Your task to perform on an android device: turn off picture-in-picture Image 0: 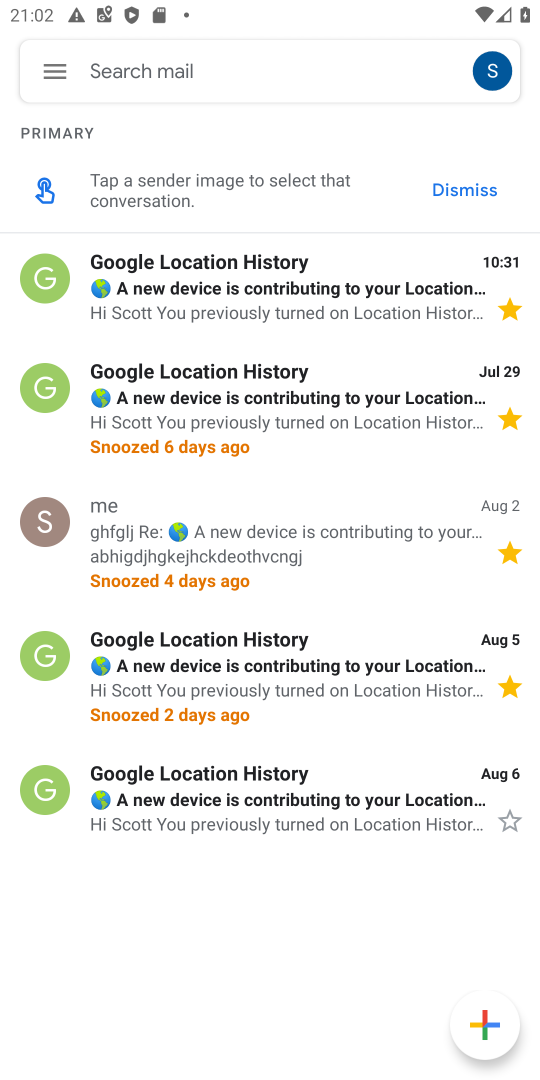
Step 0: press home button
Your task to perform on an android device: turn off picture-in-picture Image 1: 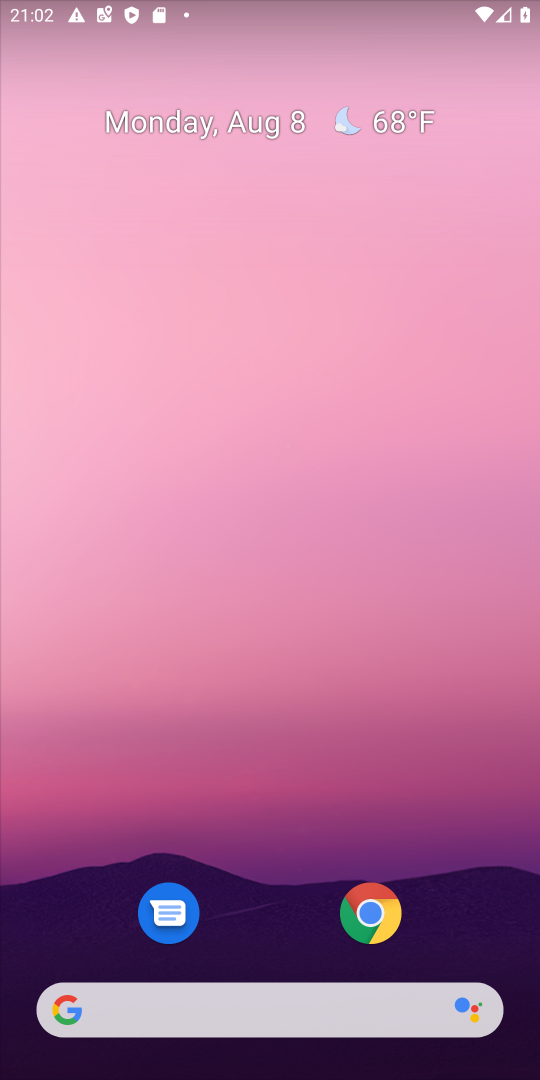
Step 1: click (371, 915)
Your task to perform on an android device: turn off picture-in-picture Image 2: 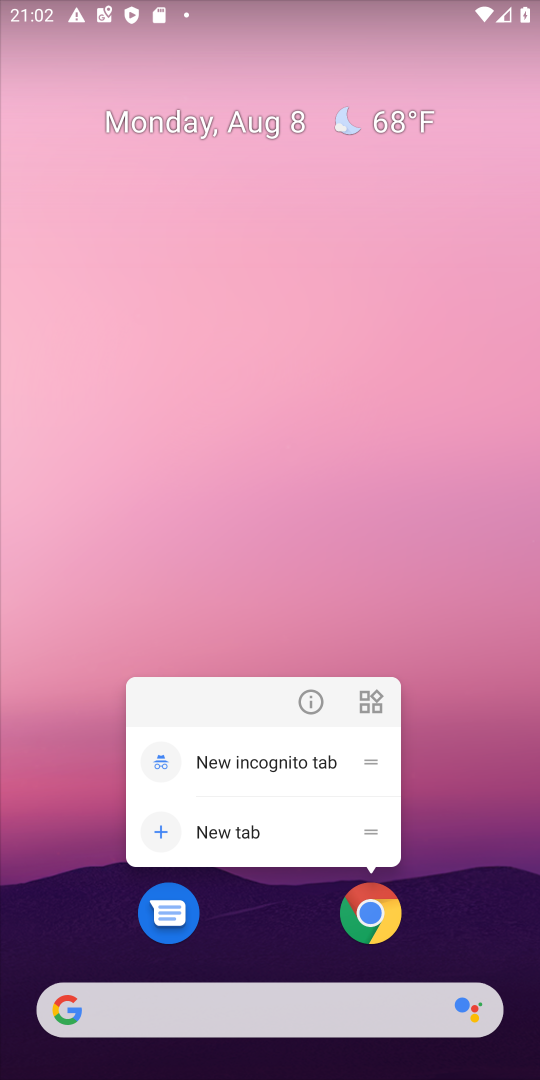
Step 2: click (309, 700)
Your task to perform on an android device: turn off picture-in-picture Image 3: 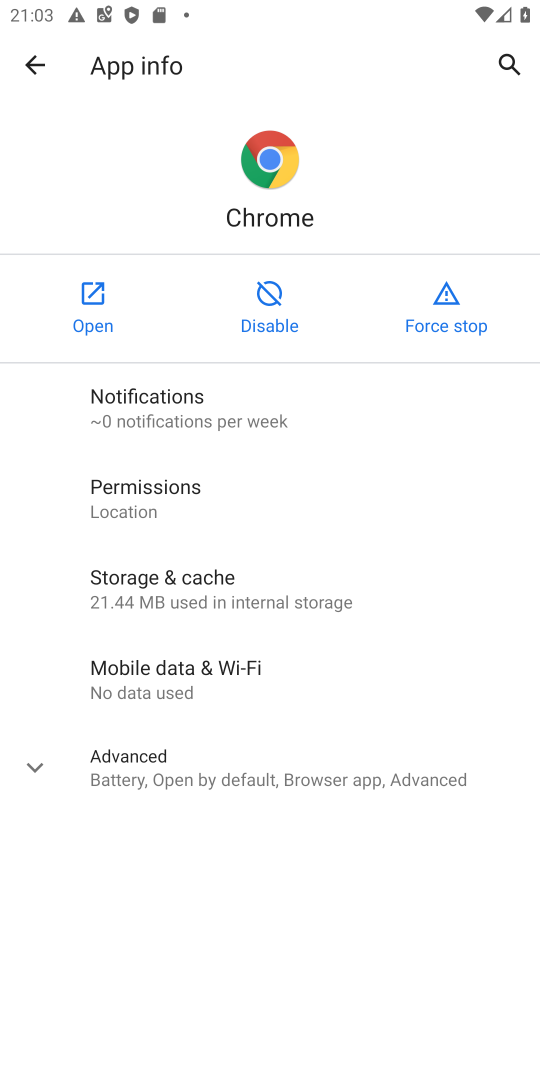
Step 3: click (115, 768)
Your task to perform on an android device: turn off picture-in-picture Image 4: 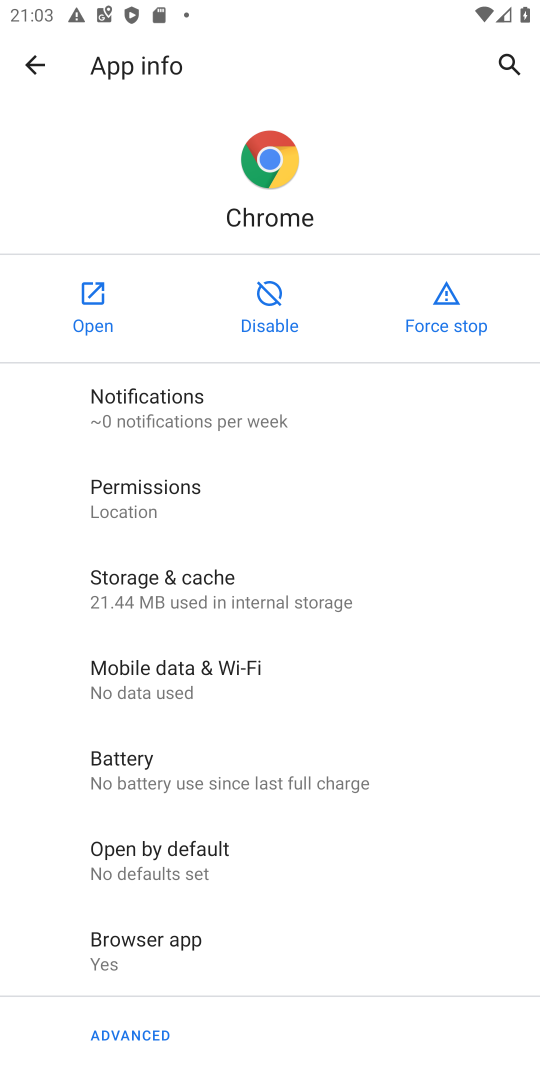
Step 4: drag from (148, 833) to (270, 621)
Your task to perform on an android device: turn off picture-in-picture Image 5: 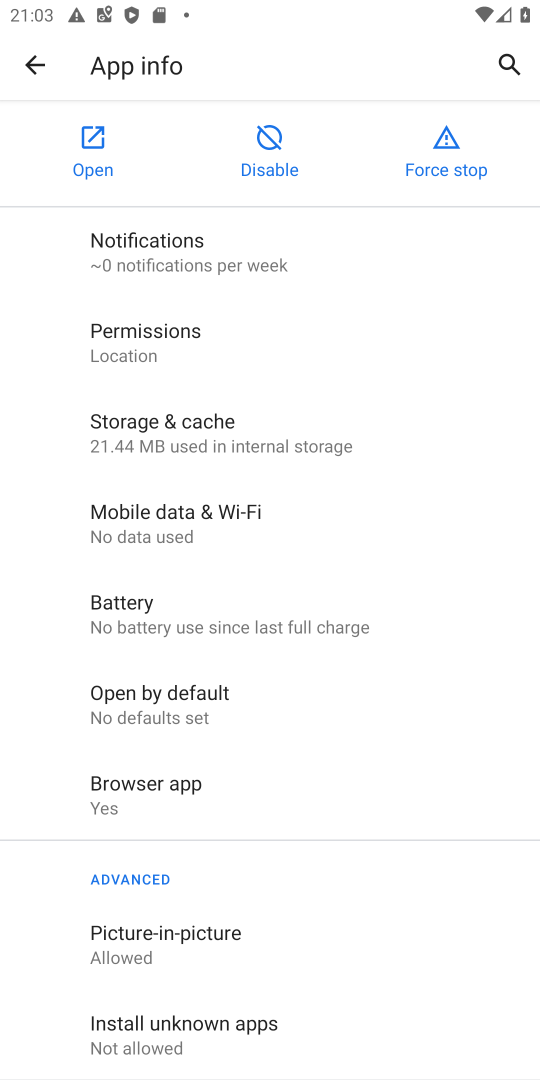
Step 5: click (210, 927)
Your task to perform on an android device: turn off picture-in-picture Image 6: 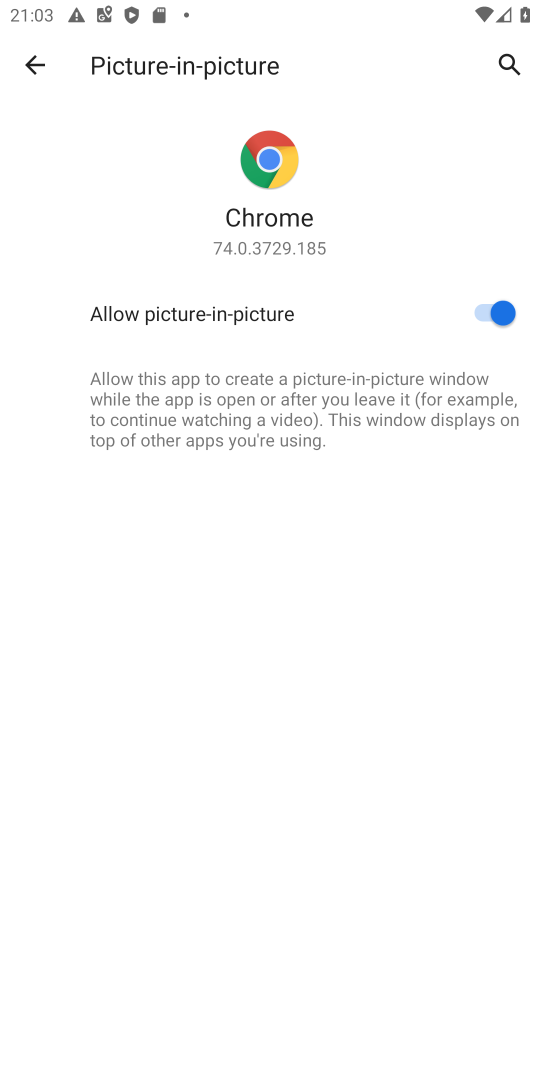
Step 6: click (474, 305)
Your task to perform on an android device: turn off picture-in-picture Image 7: 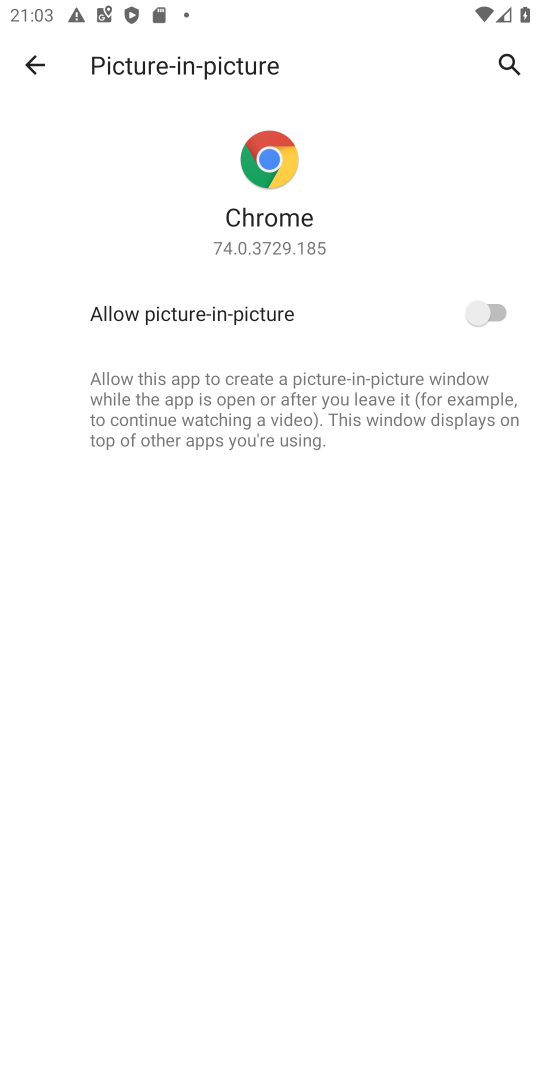
Step 7: task complete